Your task to perform on an android device: Clear the cart on bestbuy.com. Search for logitech g pro on bestbuy.com, select the first entry, and add it to the cart. Image 0: 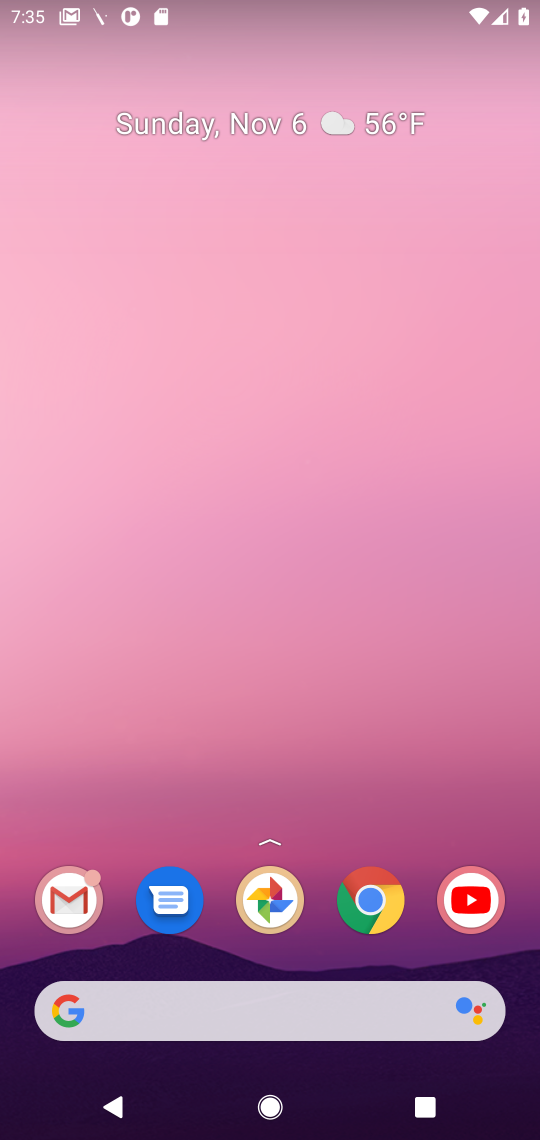
Step 0: drag from (336, 927) to (230, 3)
Your task to perform on an android device: Clear the cart on bestbuy.com. Search for logitech g pro on bestbuy.com, select the first entry, and add it to the cart. Image 1: 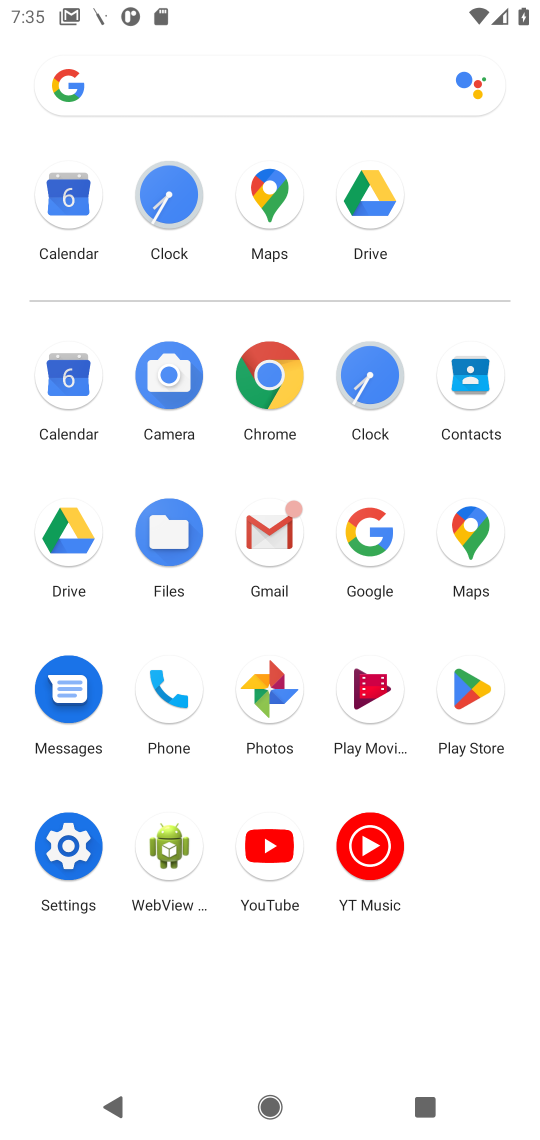
Step 1: click (257, 399)
Your task to perform on an android device: Clear the cart on bestbuy.com. Search for logitech g pro on bestbuy.com, select the first entry, and add it to the cart. Image 2: 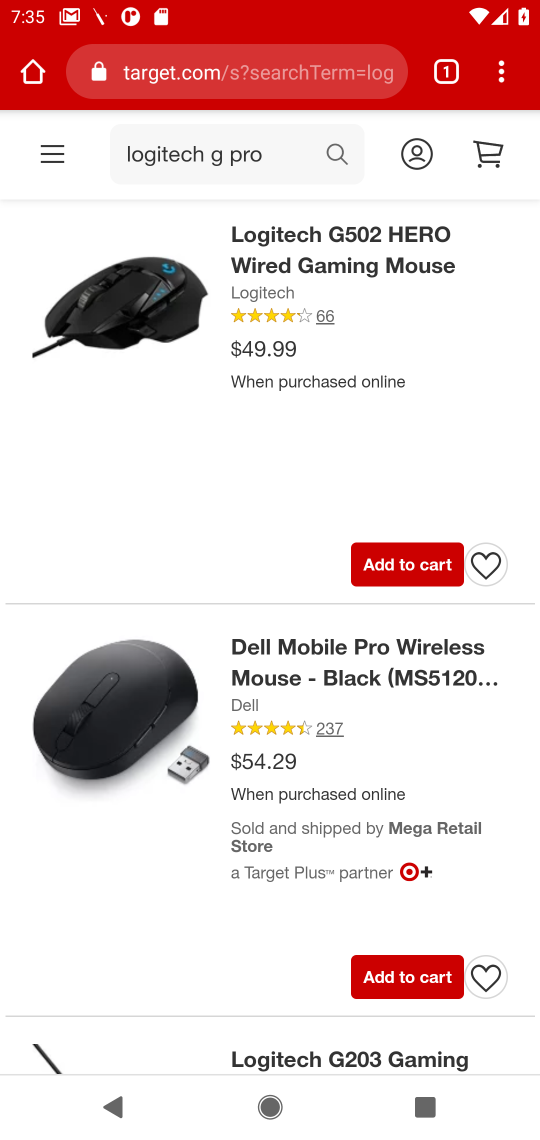
Step 2: click (298, 73)
Your task to perform on an android device: Clear the cart on bestbuy.com. Search for logitech g pro on bestbuy.com, select the first entry, and add it to the cart. Image 3: 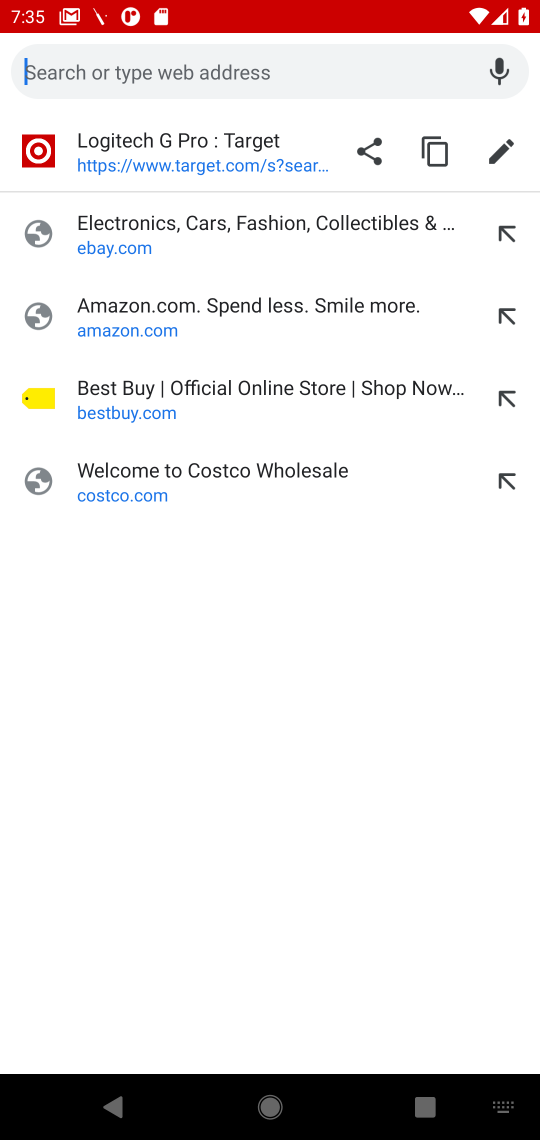
Step 3: type "bestbuy.com"
Your task to perform on an android device: Clear the cart on bestbuy.com. Search for logitech g pro on bestbuy.com, select the first entry, and add it to the cart. Image 4: 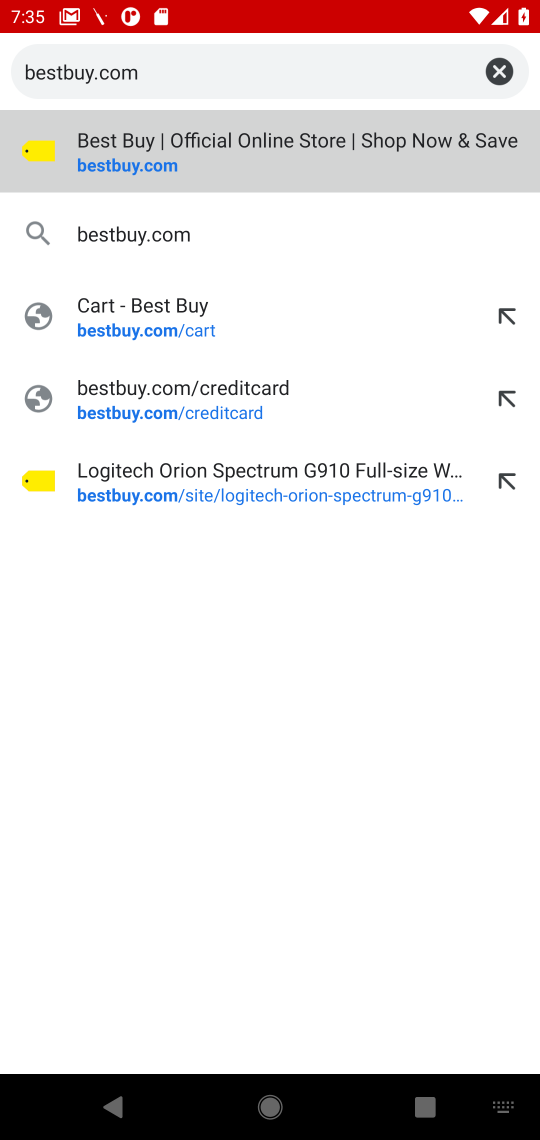
Step 4: press enter
Your task to perform on an android device: Clear the cart on bestbuy.com. Search for logitech g pro on bestbuy.com, select the first entry, and add it to the cart. Image 5: 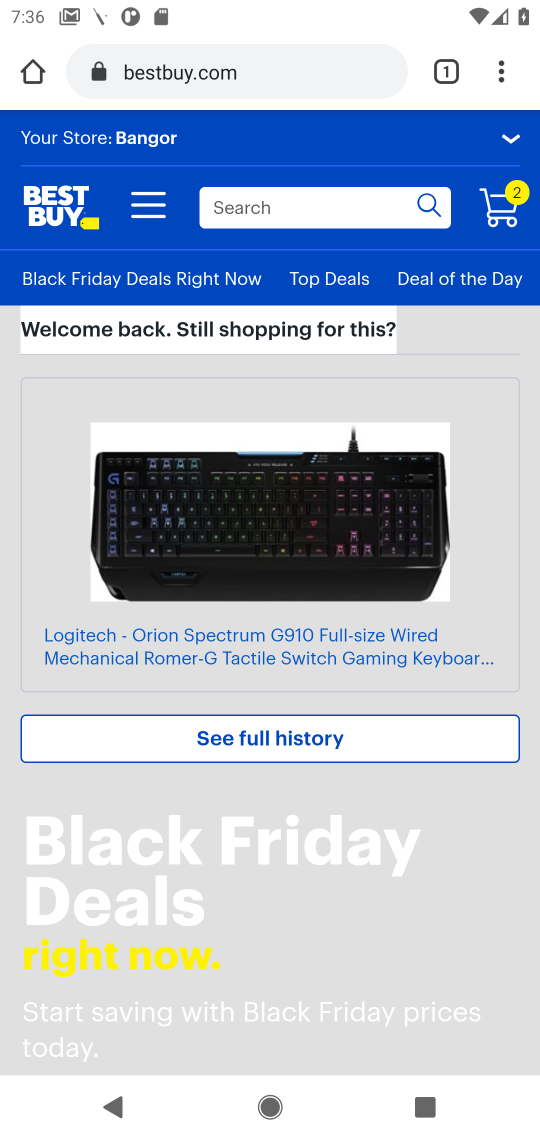
Step 5: click (515, 206)
Your task to perform on an android device: Clear the cart on bestbuy.com. Search for logitech g pro on bestbuy.com, select the first entry, and add it to the cart. Image 6: 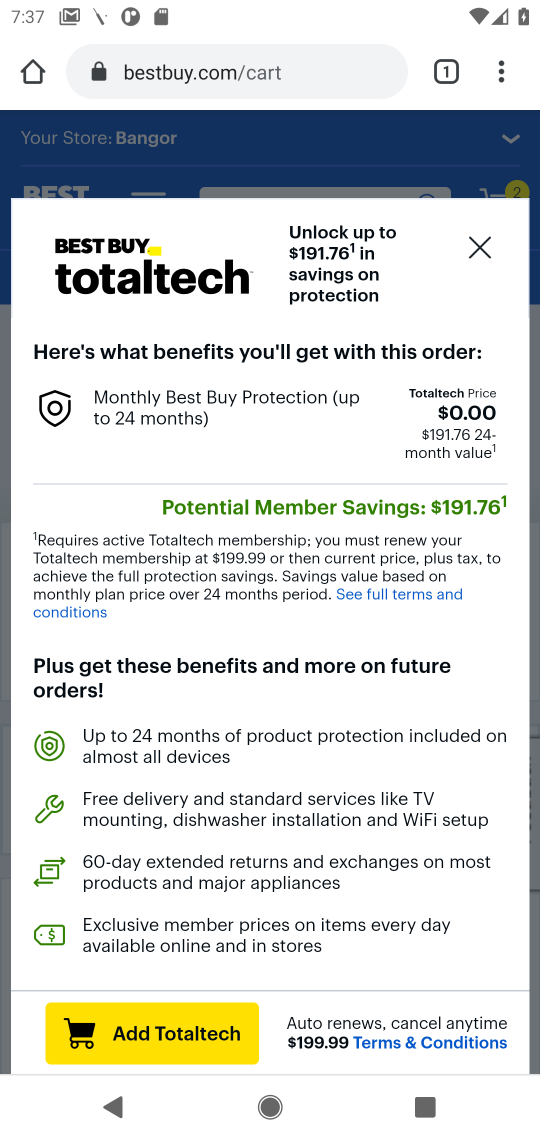
Step 6: click (483, 242)
Your task to perform on an android device: Clear the cart on bestbuy.com. Search for logitech g pro on bestbuy.com, select the first entry, and add it to the cart. Image 7: 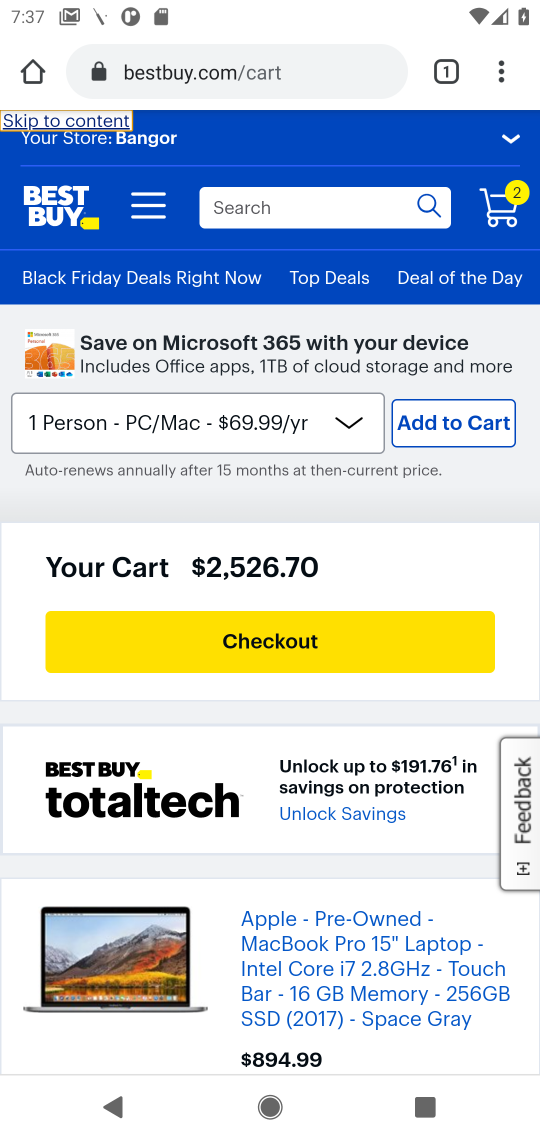
Step 7: click (366, 219)
Your task to perform on an android device: Clear the cart on bestbuy.com. Search for logitech g pro on bestbuy.com, select the first entry, and add it to the cart. Image 8: 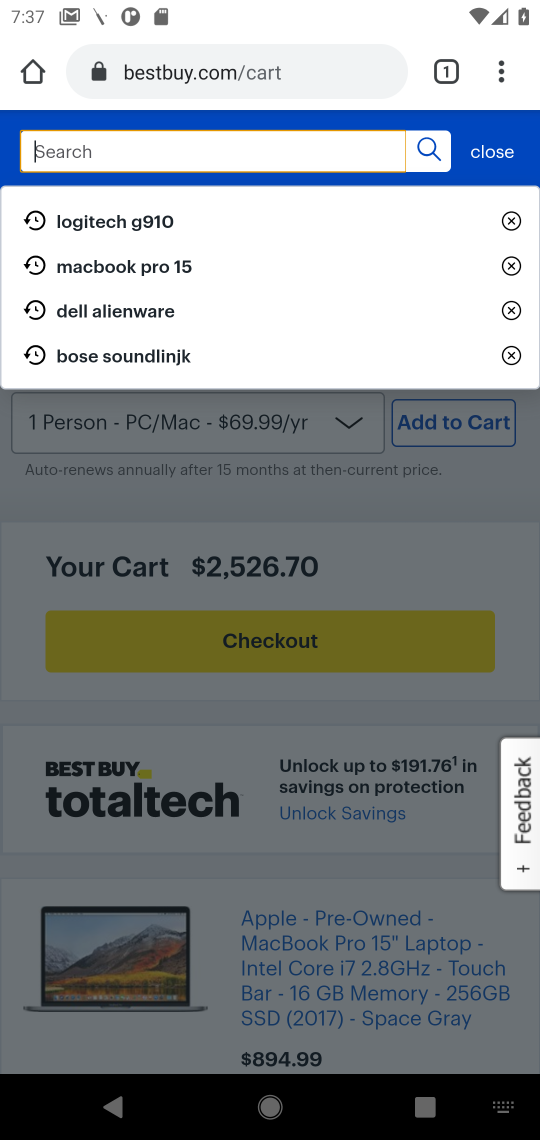
Step 8: type "logitech g pro"
Your task to perform on an android device: Clear the cart on bestbuy.com. Search for logitech g pro on bestbuy.com, select the first entry, and add it to the cart. Image 9: 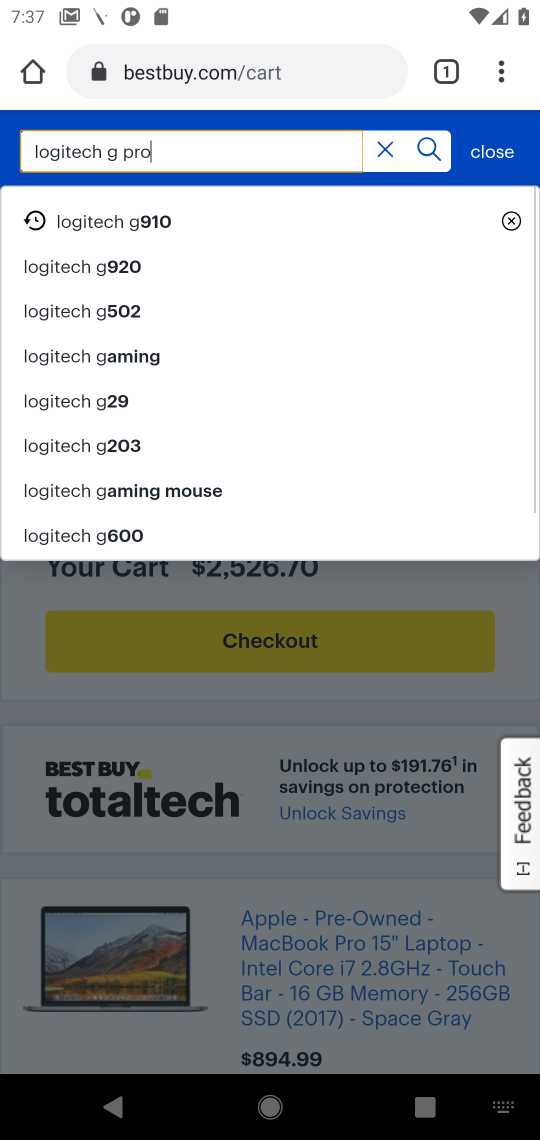
Step 9: press enter
Your task to perform on an android device: Clear the cart on bestbuy.com. Search for logitech g pro on bestbuy.com, select the first entry, and add it to the cart. Image 10: 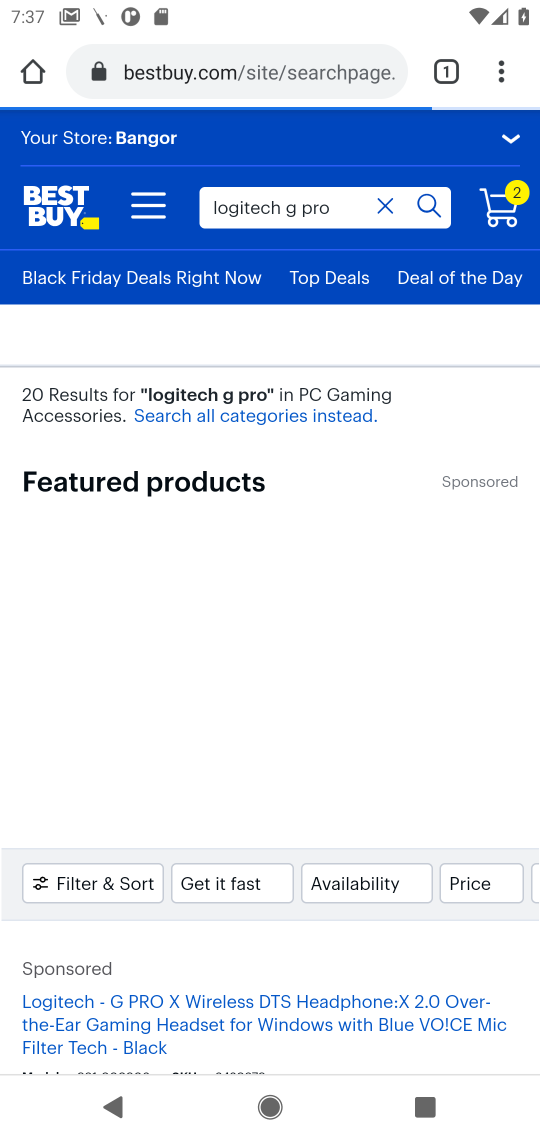
Step 10: drag from (133, 894) to (119, 272)
Your task to perform on an android device: Clear the cart on bestbuy.com. Search for logitech g pro on bestbuy.com, select the first entry, and add it to the cart. Image 11: 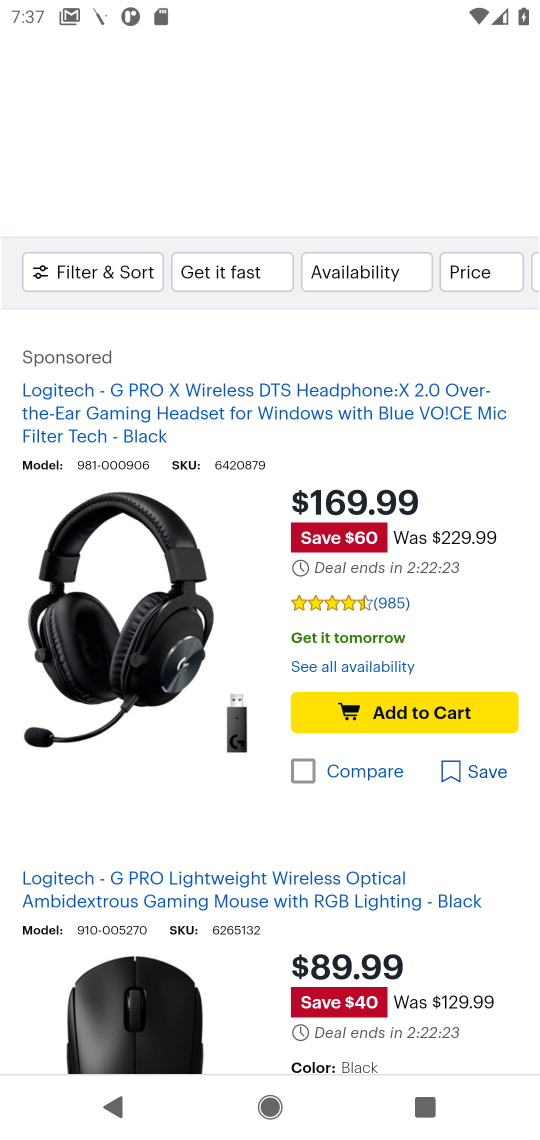
Step 11: drag from (367, 885) to (337, 488)
Your task to perform on an android device: Clear the cart on bestbuy.com. Search for logitech g pro on bestbuy.com, select the first entry, and add it to the cart. Image 12: 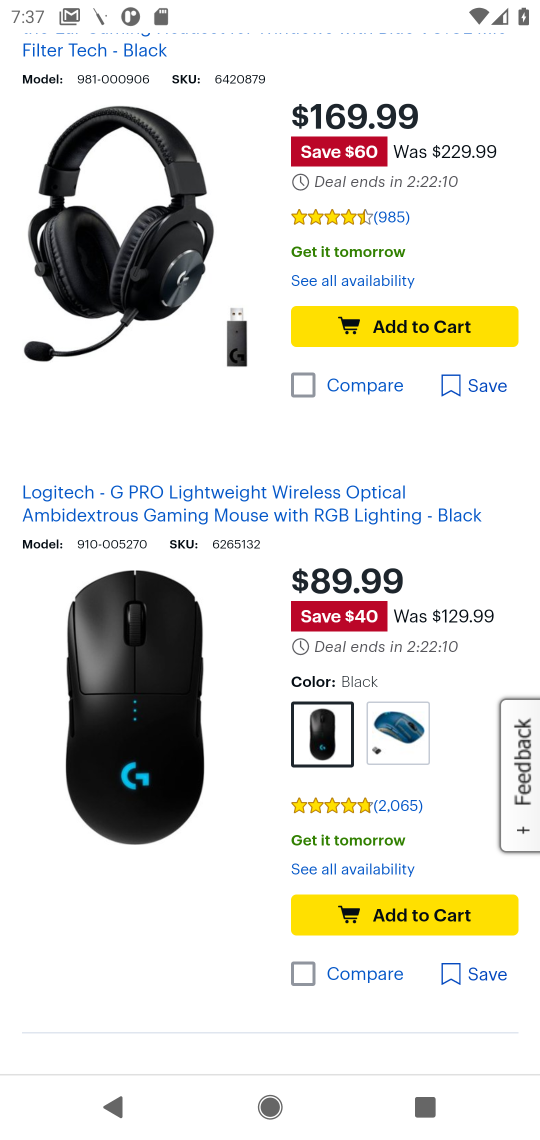
Step 12: click (275, 461)
Your task to perform on an android device: Clear the cart on bestbuy.com. Search for logitech g pro on bestbuy.com, select the first entry, and add it to the cart. Image 13: 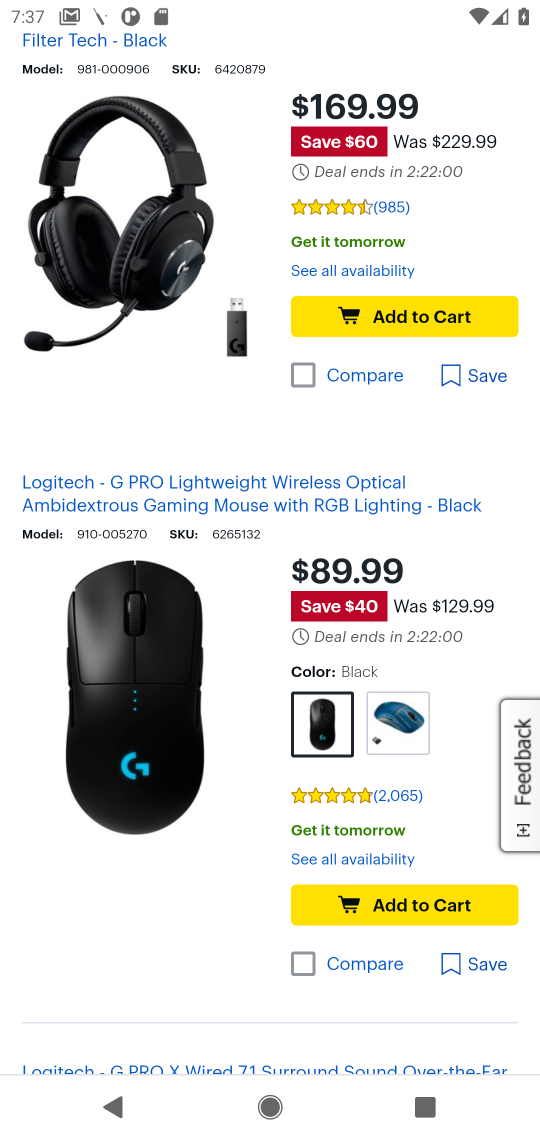
Step 13: drag from (393, 205) to (335, 1124)
Your task to perform on an android device: Clear the cart on bestbuy.com. Search for logitech g pro on bestbuy.com, select the first entry, and add it to the cart. Image 14: 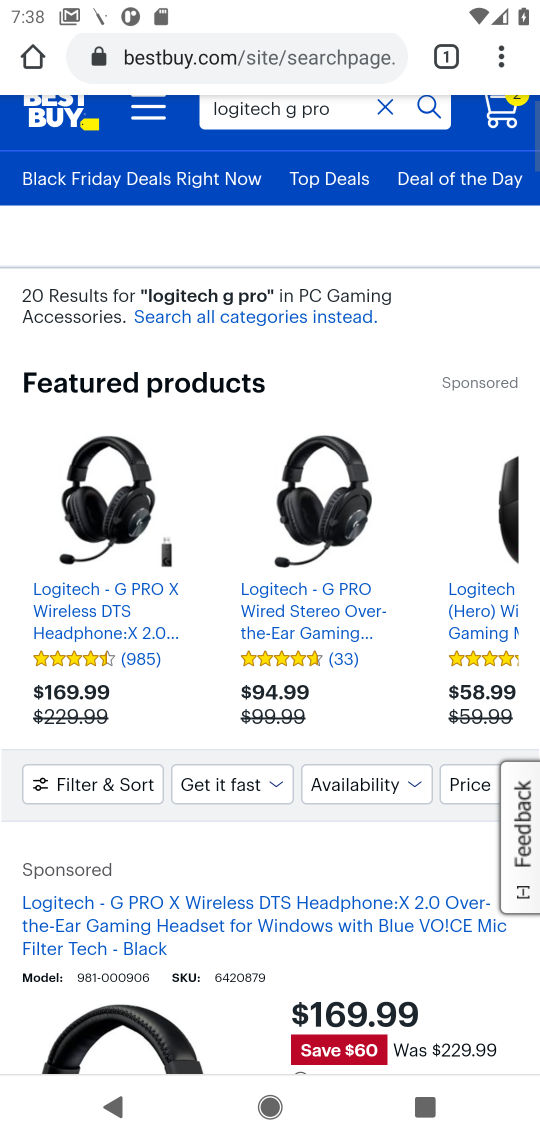
Step 14: drag from (381, 581) to (367, 979)
Your task to perform on an android device: Clear the cart on bestbuy.com. Search for logitech g pro on bestbuy.com, select the first entry, and add it to the cart. Image 15: 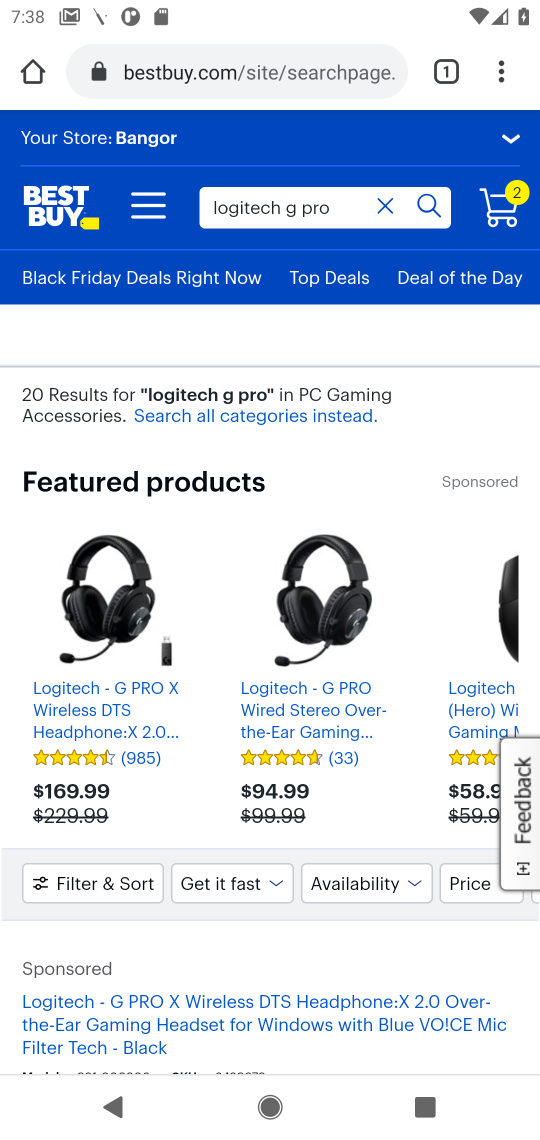
Step 15: click (511, 204)
Your task to perform on an android device: Clear the cart on bestbuy.com. Search for logitech g pro on bestbuy.com, select the first entry, and add it to the cart. Image 16: 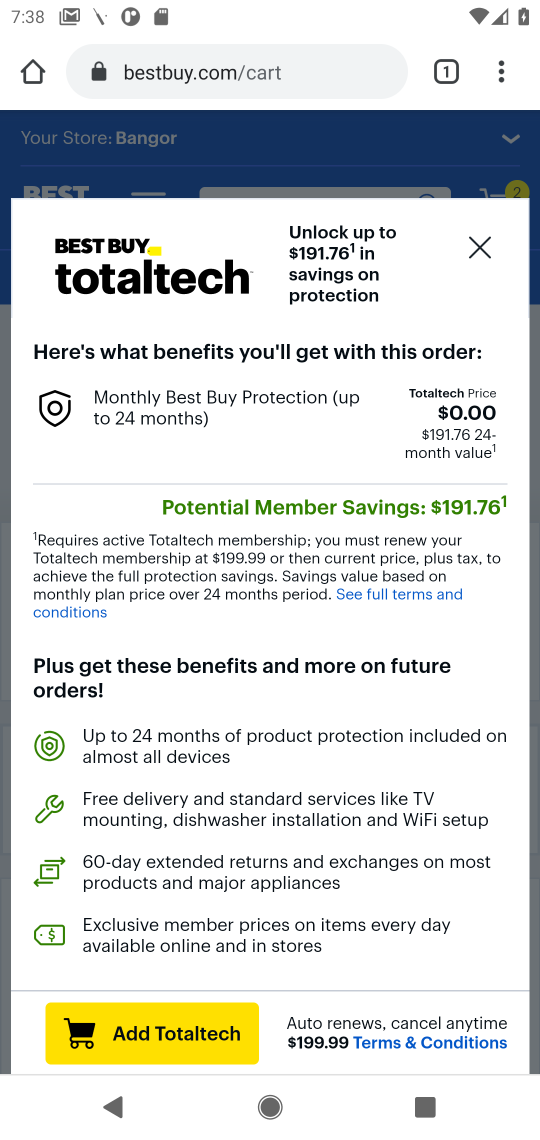
Step 16: click (471, 232)
Your task to perform on an android device: Clear the cart on bestbuy.com. Search for logitech g pro on bestbuy.com, select the first entry, and add it to the cart. Image 17: 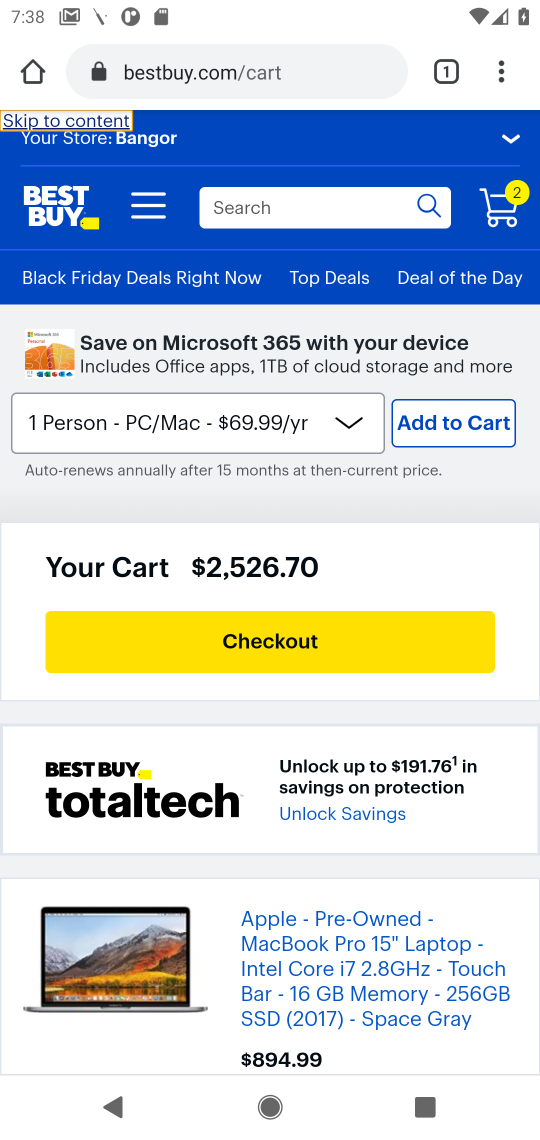
Step 17: drag from (364, 935) to (388, 504)
Your task to perform on an android device: Clear the cart on bestbuy.com. Search for logitech g pro on bestbuy.com, select the first entry, and add it to the cart. Image 18: 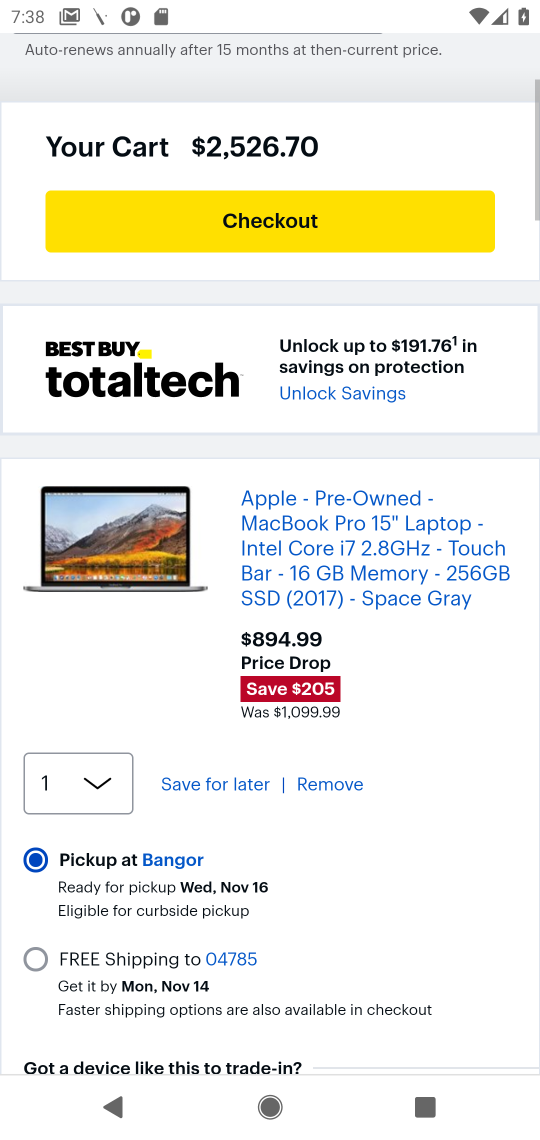
Step 18: click (311, 778)
Your task to perform on an android device: Clear the cart on bestbuy.com. Search for logitech g pro on bestbuy.com, select the first entry, and add it to the cart. Image 19: 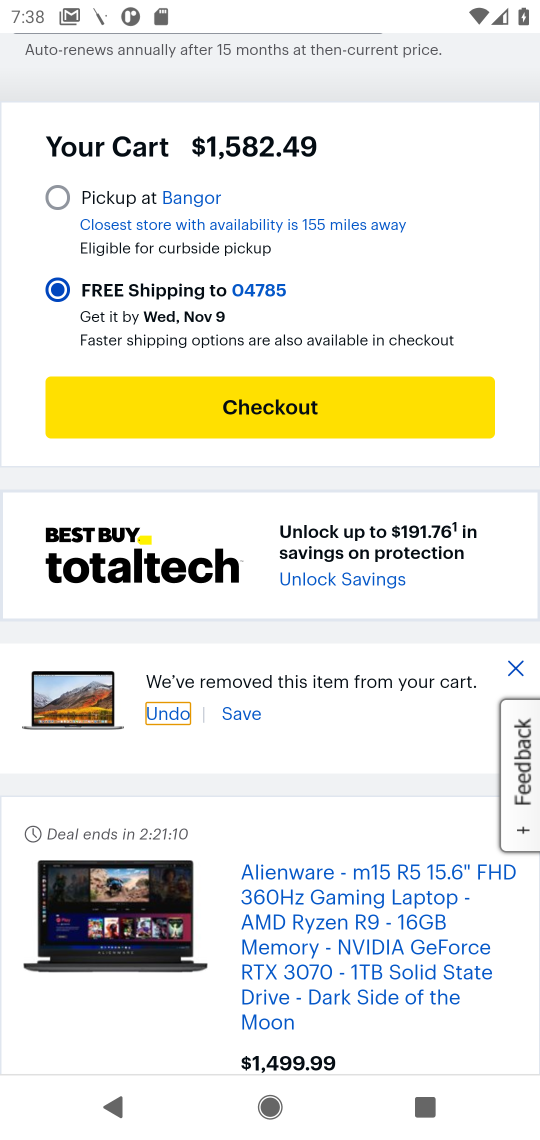
Step 19: drag from (347, 268) to (328, 400)
Your task to perform on an android device: Clear the cart on bestbuy.com. Search for logitech g pro on bestbuy.com, select the first entry, and add it to the cart. Image 20: 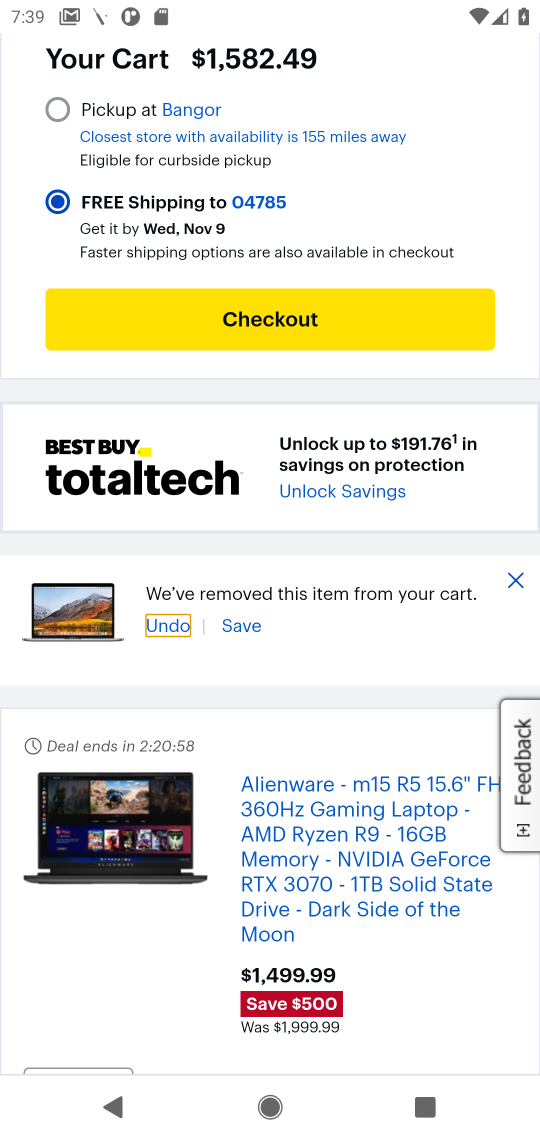
Step 20: click (506, 574)
Your task to perform on an android device: Clear the cart on bestbuy.com. Search for logitech g pro on bestbuy.com, select the first entry, and add it to the cart. Image 21: 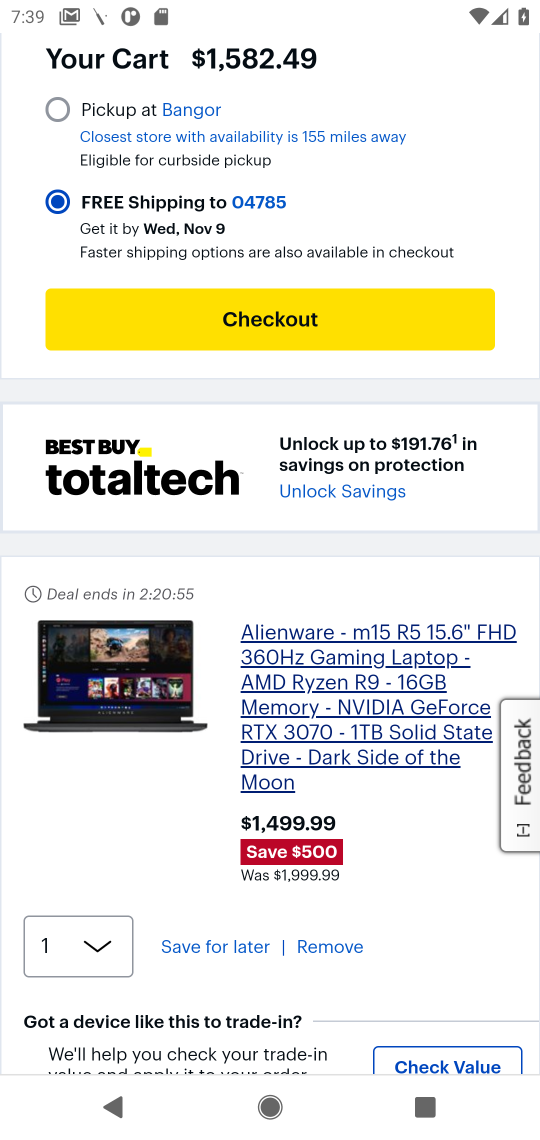
Step 21: click (337, 949)
Your task to perform on an android device: Clear the cart on bestbuy.com. Search for logitech g pro on bestbuy.com, select the first entry, and add it to the cart. Image 22: 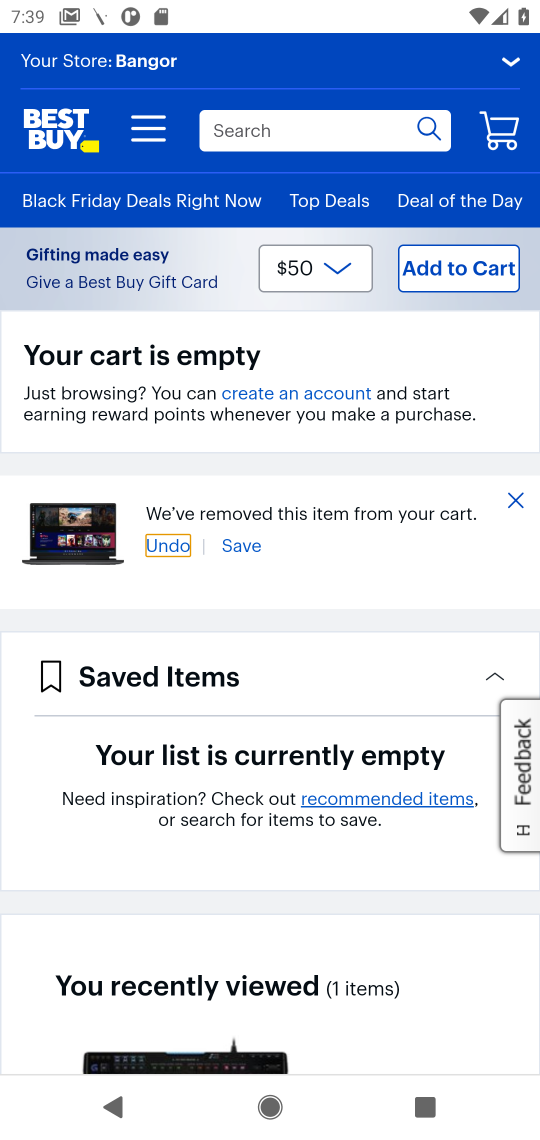
Step 22: click (348, 125)
Your task to perform on an android device: Clear the cart on bestbuy.com. Search for logitech g pro on bestbuy.com, select the first entry, and add it to the cart. Image 23: 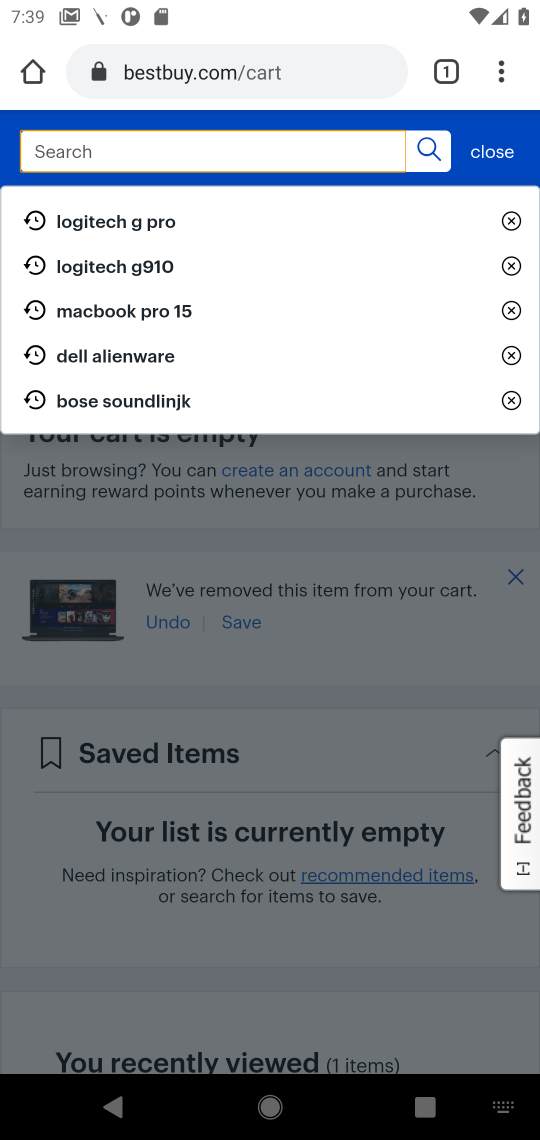
Step 23: click (160, 221)
Your task to perform on an android device: Clear the cart on bestbuy.com. Search for logitech g pro on bestbuy.com, select the first entry, and add it to the cart. Image 24: 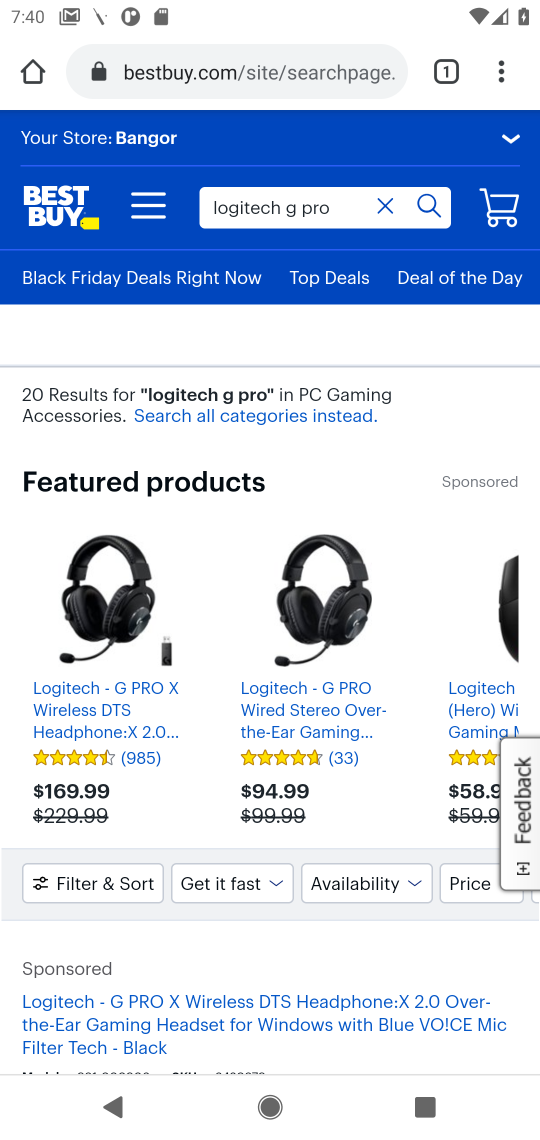
Step 24: drag from (196, 905) to (281, 163)
Your task to perform on an android device: Clear the cart on bestbuy.com. Search for logitech g pro on bestbuy.com, select the first entry, and add it to the cart. Image 25: 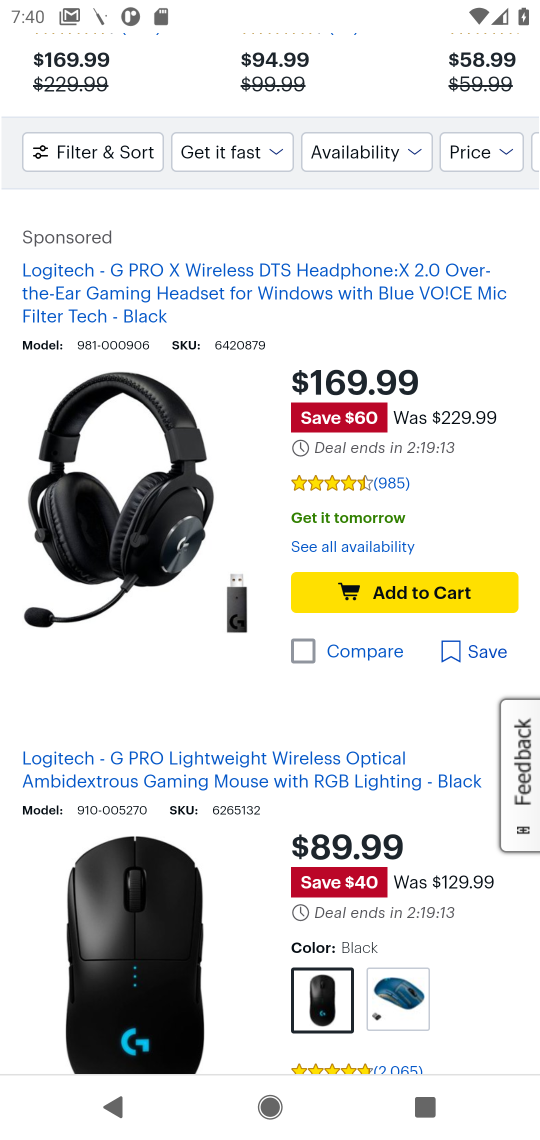
Step 25: drag from (247, 823) to (271, 470)
Your task to perform on an android device: Clear the cart on bestbuy.com. Search for logitech g pro on bestbuy.com, select the first entry, and add it to the cart. Image 26: 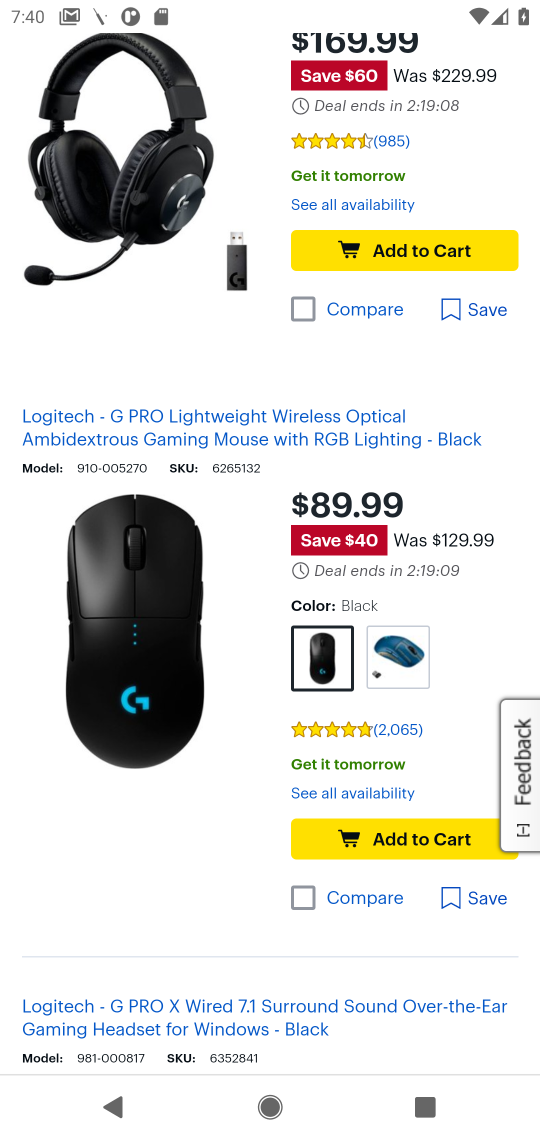
Step 26: click (385, 843)
Your task to perform on an android device: Clear the cart on bestbuy.com. Search for logitech g pro on bestbuy.com, select the first entry, and add it to the cart. Image 27: 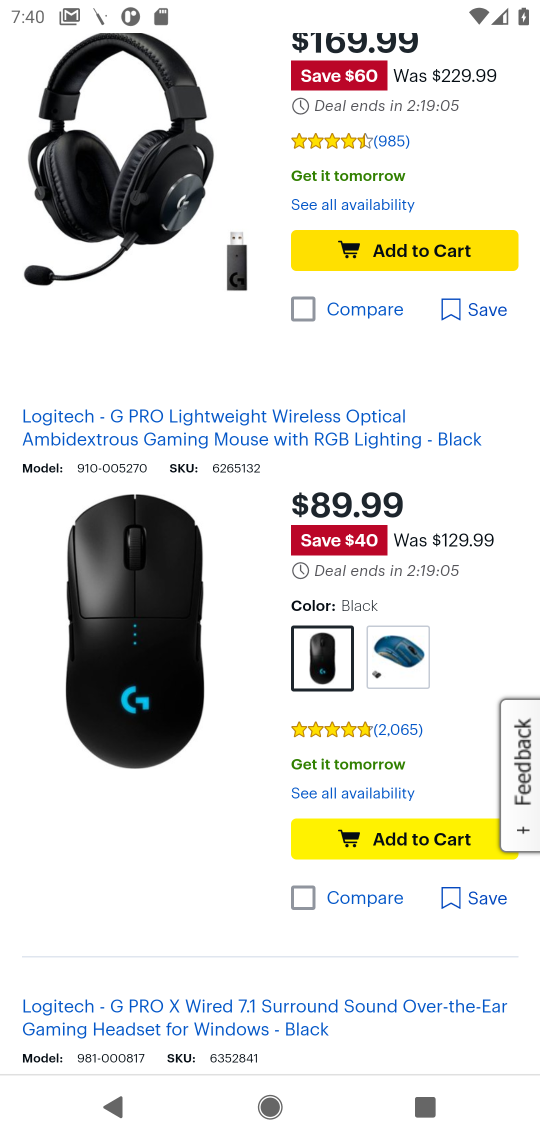
Step 27: task complete